Your task to perform on an android device: Go to Amazon Image 0: 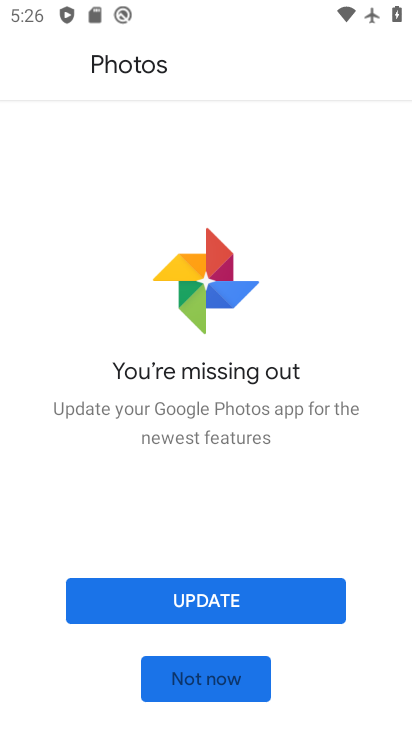
Step 0: press home button
Your task to perform on an android device: Go to Amazon Image 1: 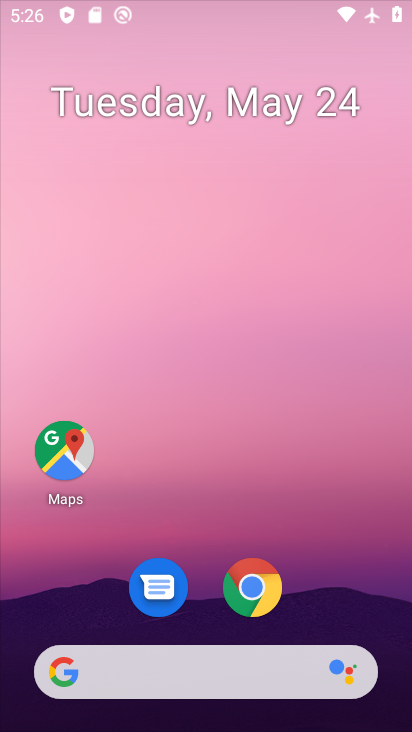
Step 1: click (236, 596)
Your task to perform on an android device: Go to Amazon Image 2: 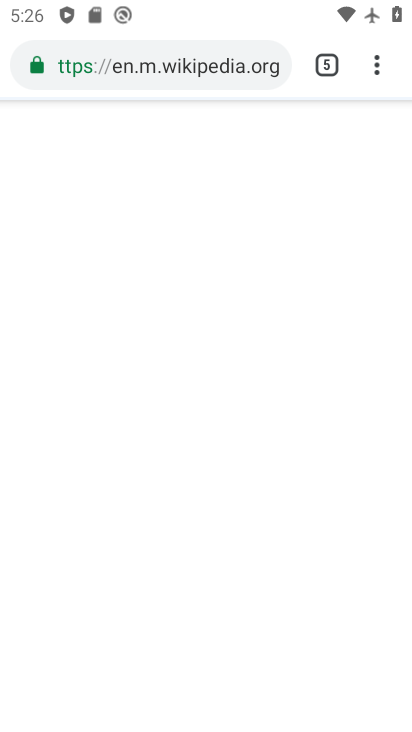
Step 2: click (315, 60)
Your task to perform on an android device: Go to Amazon Image 3: 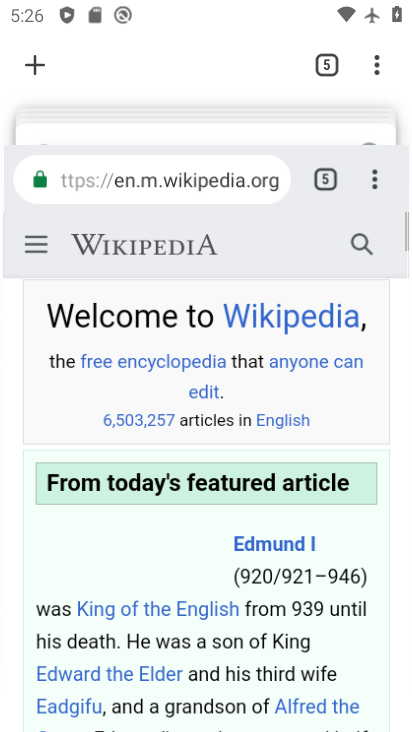
Step 3: click (29, 55)
Your task to perform on an android device: Go to Amazon Image 4: 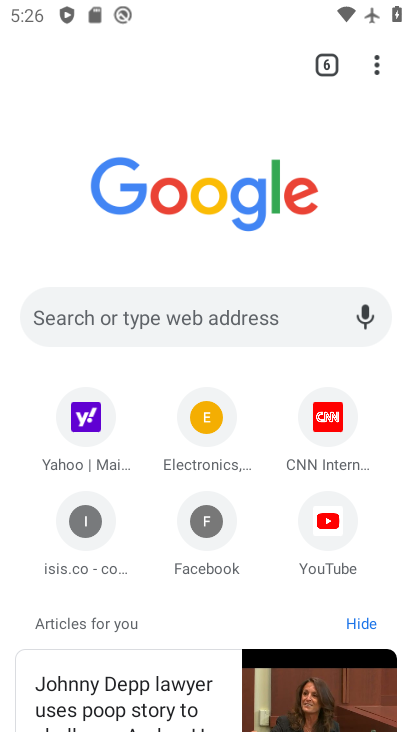
Step 4: click (323, 66)
Your task to perform on an android device: Go to Amazon Image 5: 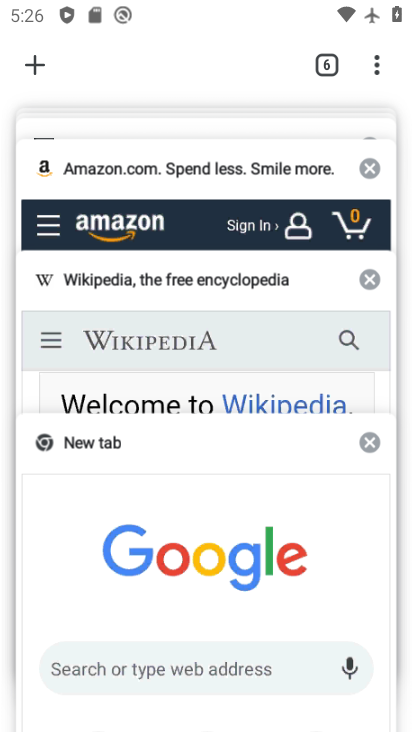
Step 5: click (190, 232)
Your task to perform on an android device: Go to Amazon Image 6: 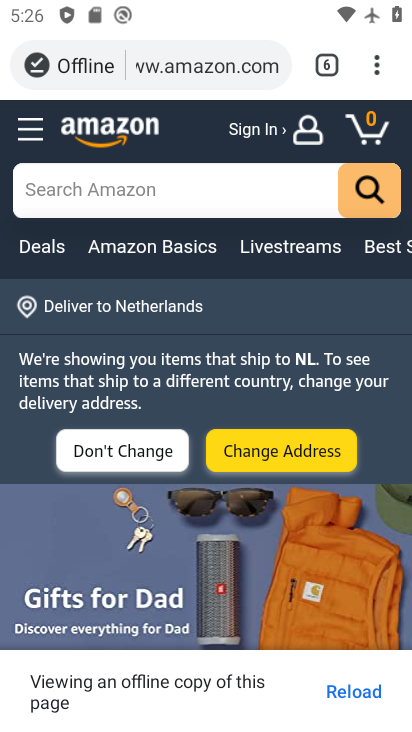
Step 6: task complete